Your task to perform on an android device: Go to Maps Image 0: 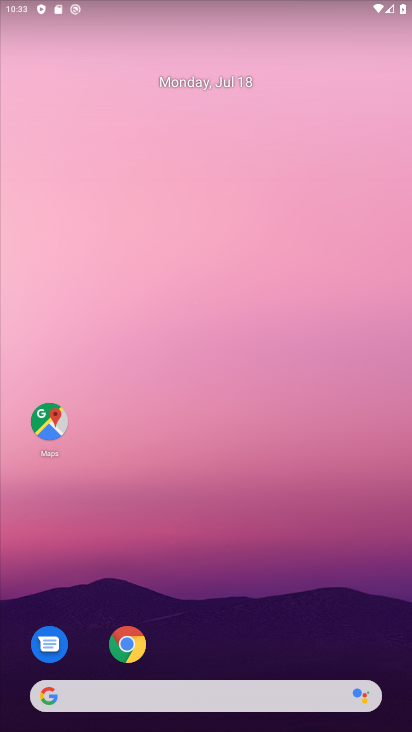
Step 0: click (48, 417)
Your task to perform on an android device: Go to Maps Image 1: 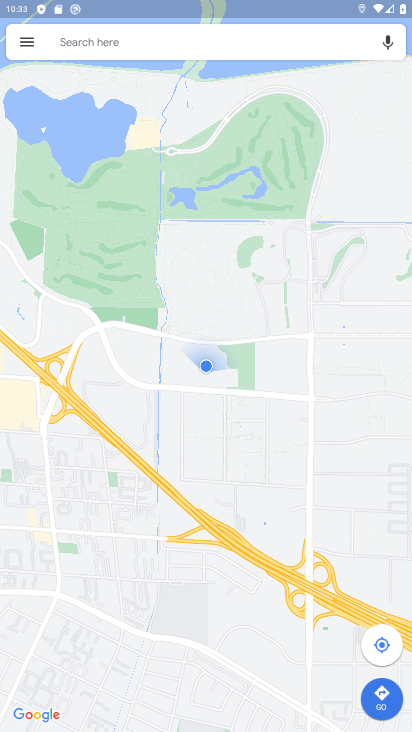
Step 1: task complete